Your task to perform on an android device: open app "The Home Depot" Image 0: 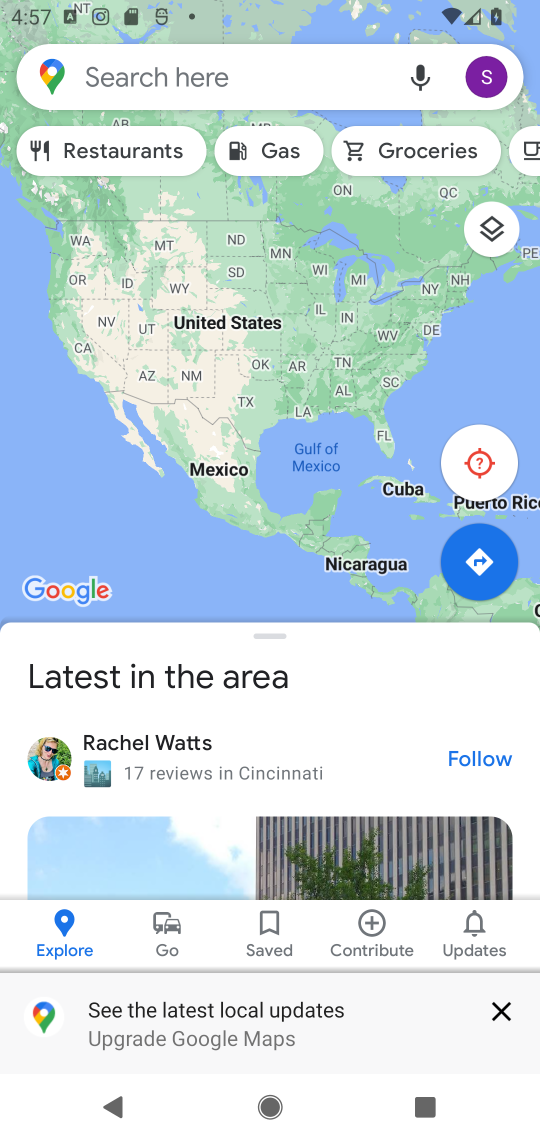
Step 0: press home button
Your task to perform on an android device: open app "The Home Depot" Image 1: 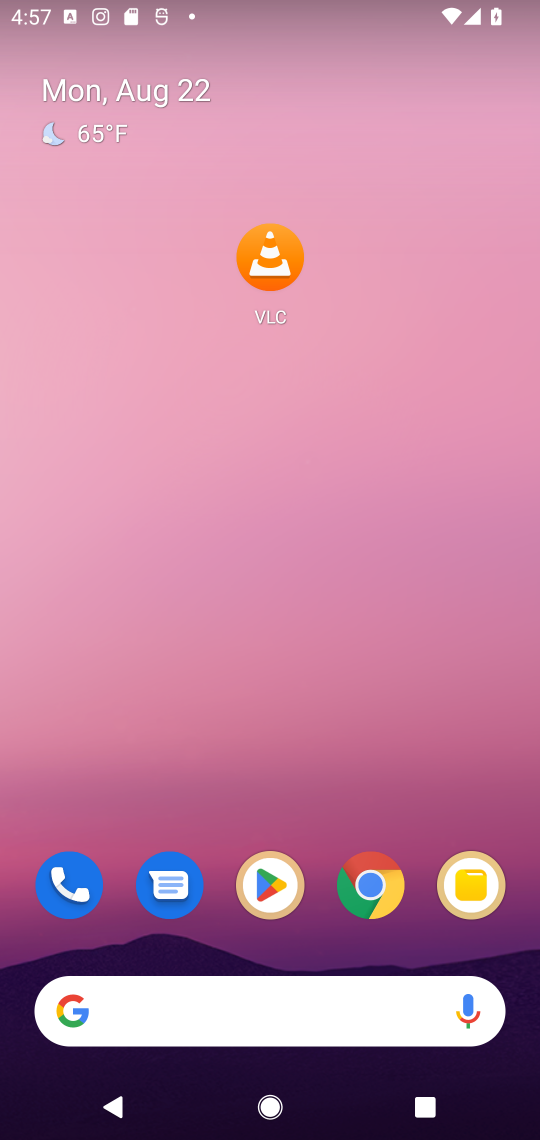
Step 1: click (264, 885)
Your task to perform on an android device: open app "The Home Depot" Image 2: 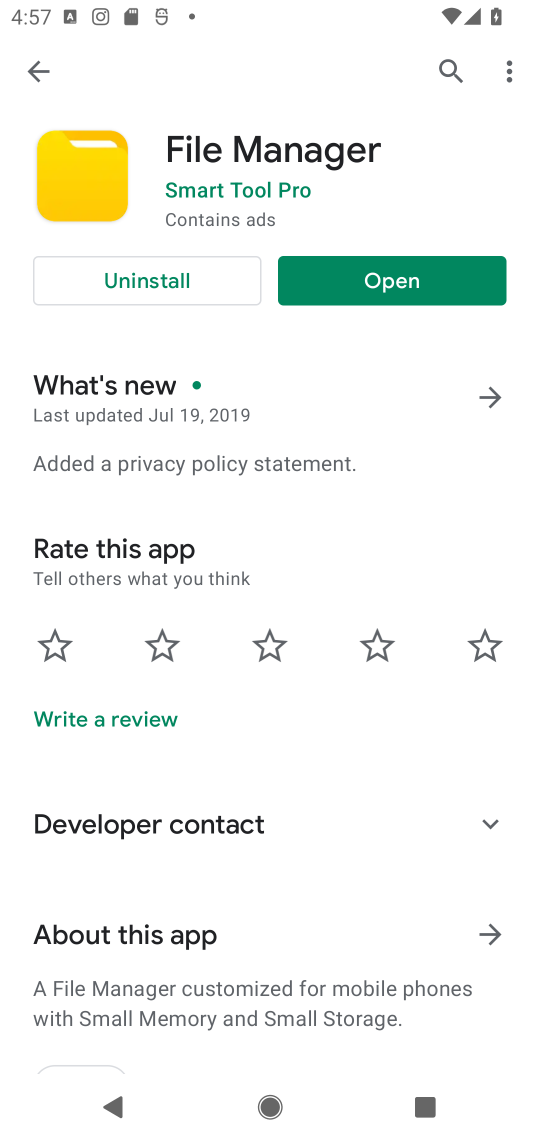
Step 2: click (431, 64)
Your task to perform on an android device: open app "The Home Depot" Image 3: 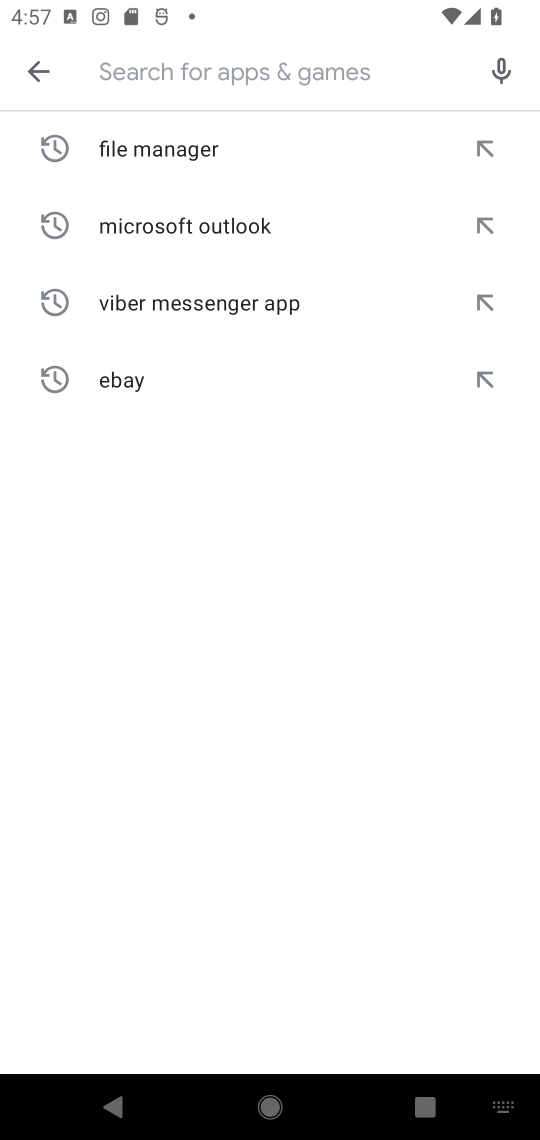
Step 3: type "The Home Depot"
Your task to perform on an android device: open app "The Home Depot" Image 4: 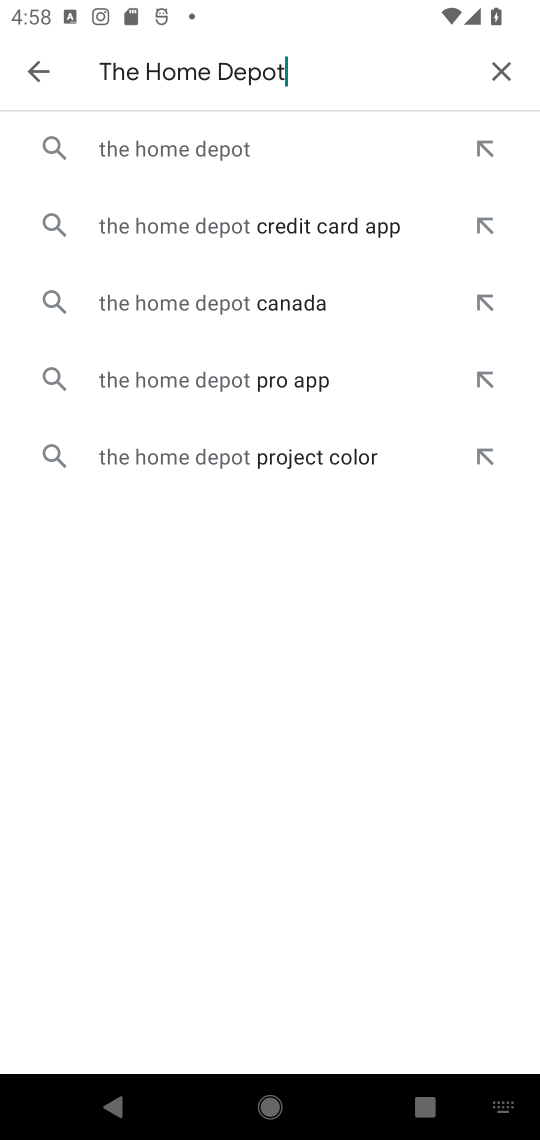
Step 4: click (234, 154)
Your task to perform on an android device: open app "The Home Depot" Image 5: 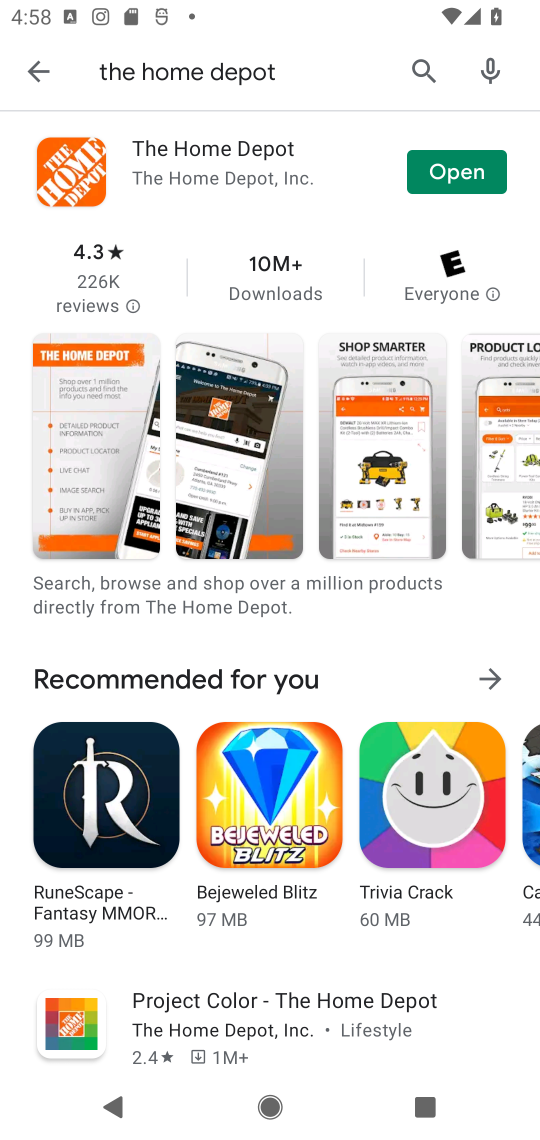
Step 5: click (457, 176)
Your task to perform on an android device: open app "The Home Depot" Image 6: 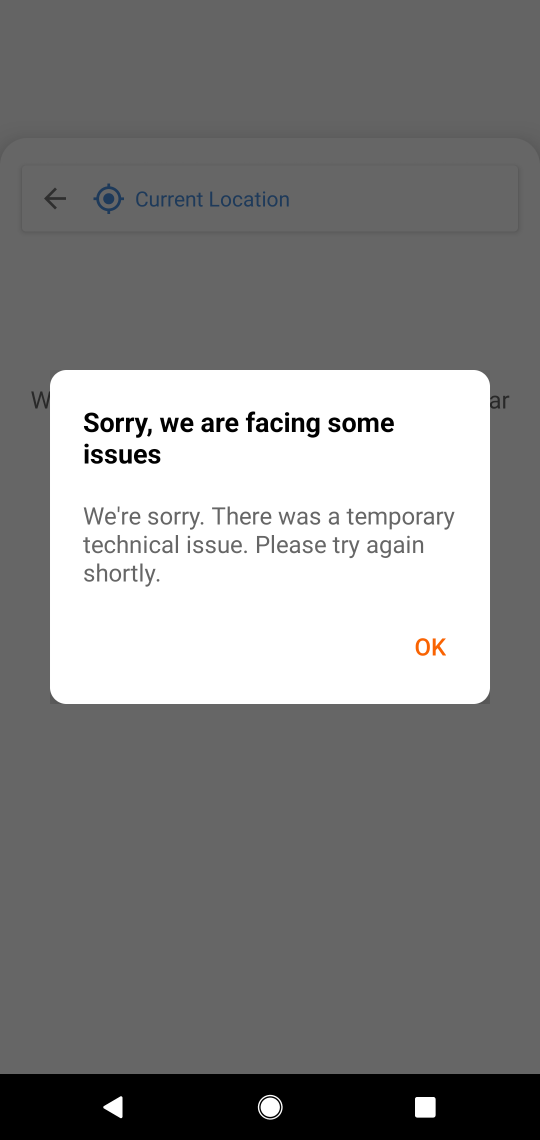
Step 6: click (432, 630)
Your task to perform on an android device: open app "The Home Depot" Image 7: 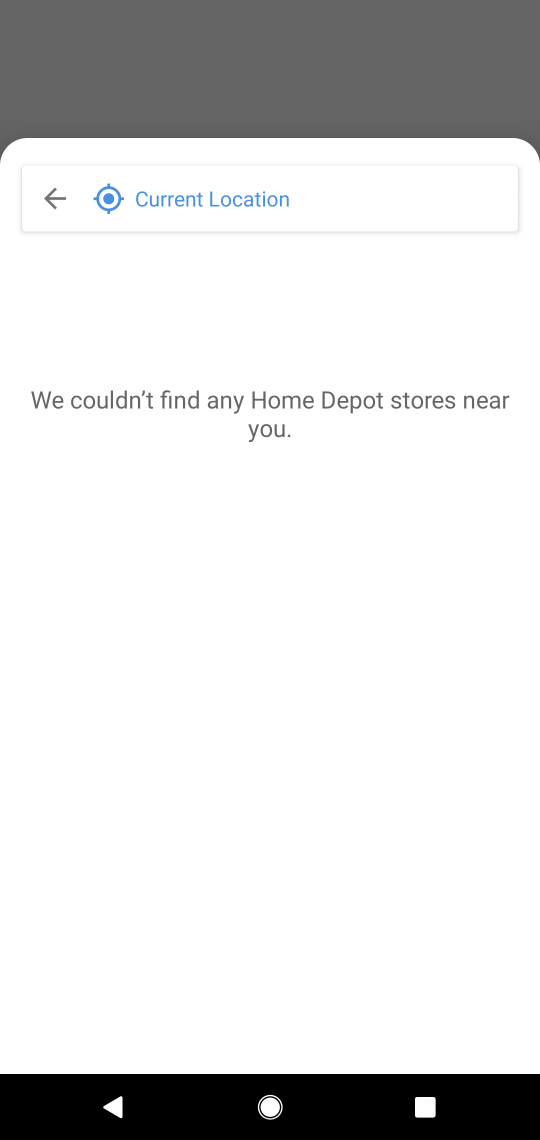
Step 7: task complete